Your task to perform on an android device: turn on airplane mode Image 0: 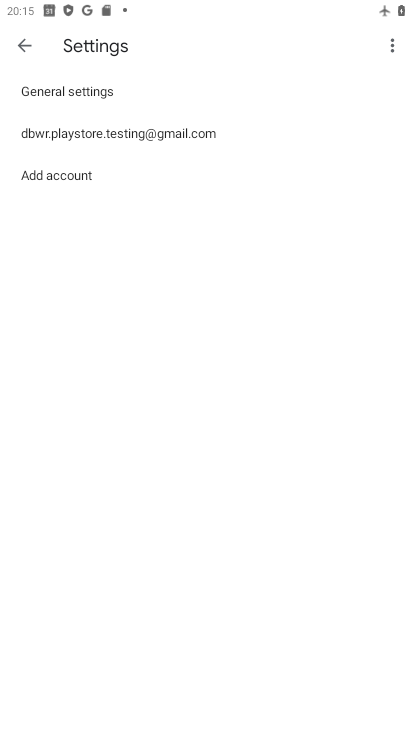
Step 0: press home button
Your task to perform on an android device: turn on airplane mode Image 1: 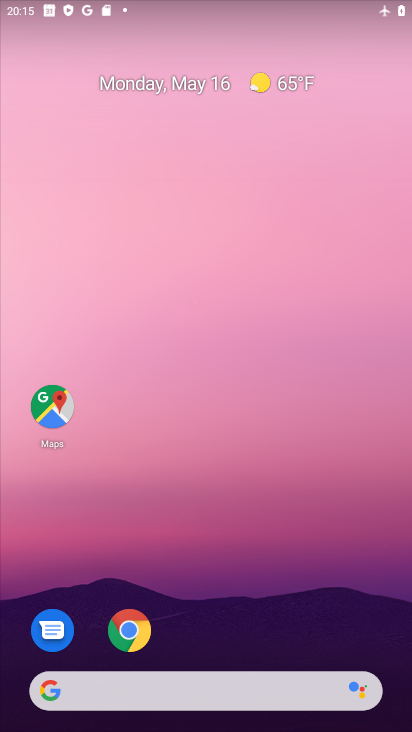
Step 1: drag from (223, 210) to (225, 142)
Your task to perform on an android device: turn on airplane mode Image 2: 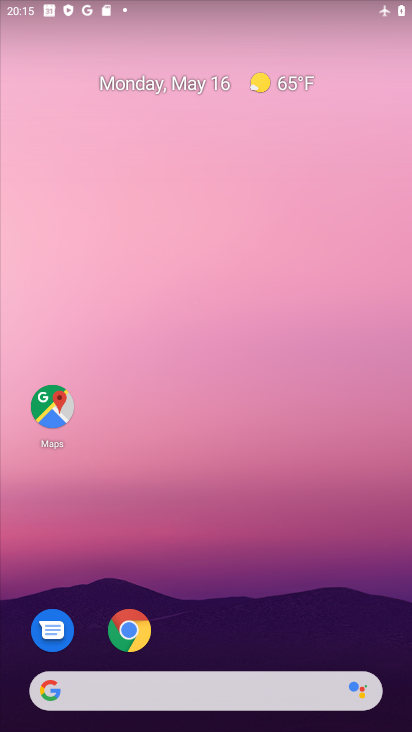
Step 2: drag from (220, 640) to (223, 134)
Your task to perform on an android device: turn on airplane mode Image 3: 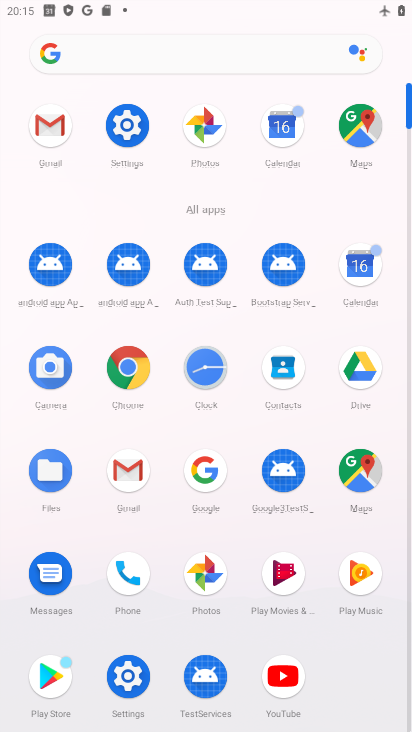
Step 3: click (137, 127)
Your task to perform on an android device: turn on airplane mode Image 4: 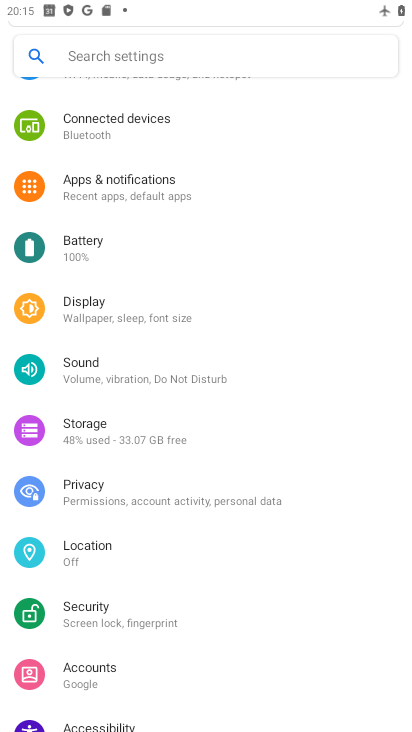
Step 4: drag from (205, 140) to (177, 584)
Your task to perform on an android device: turn on airplane mode Image 5: 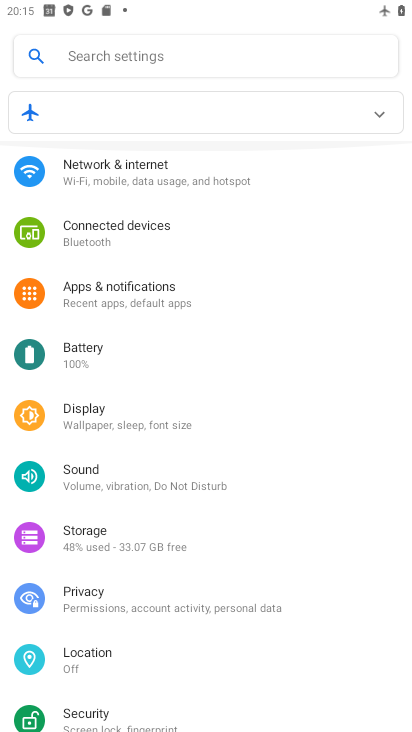
Step 5: click (166, 160)
Your task to perform on an android device: turn on airplane mode Image 6: 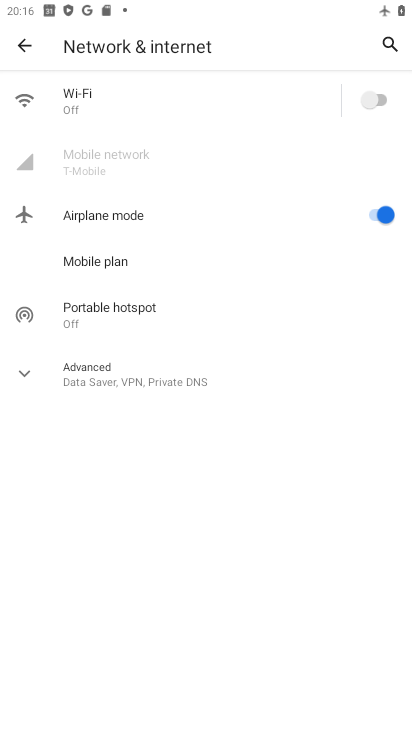
Step 6: task complete